Your task to perform on an android device: toggle improve location accuracy Image 0: 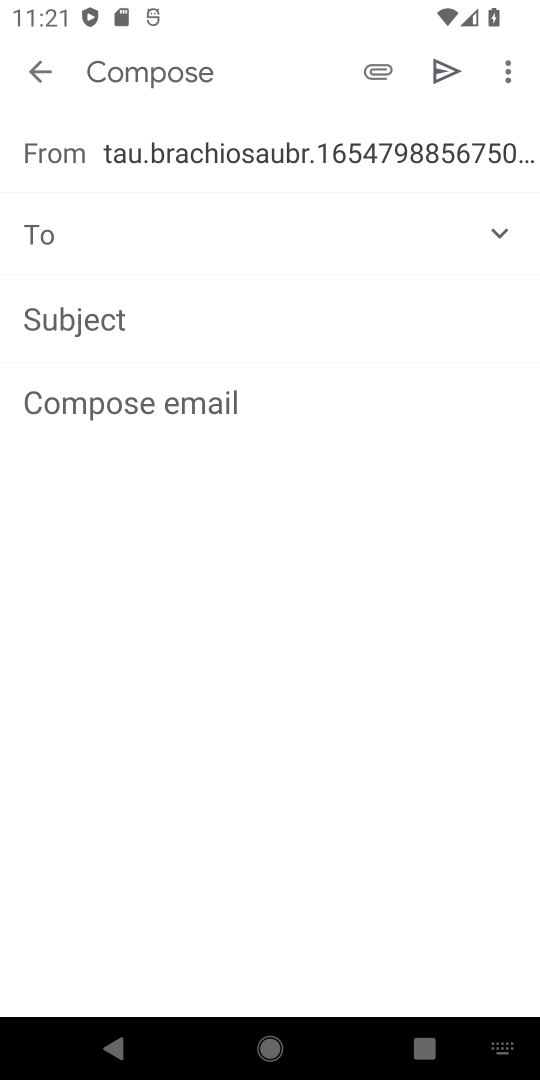
Step 0: press home button
Your task to perform on an android device: toggle improve location accuracy Image 1: 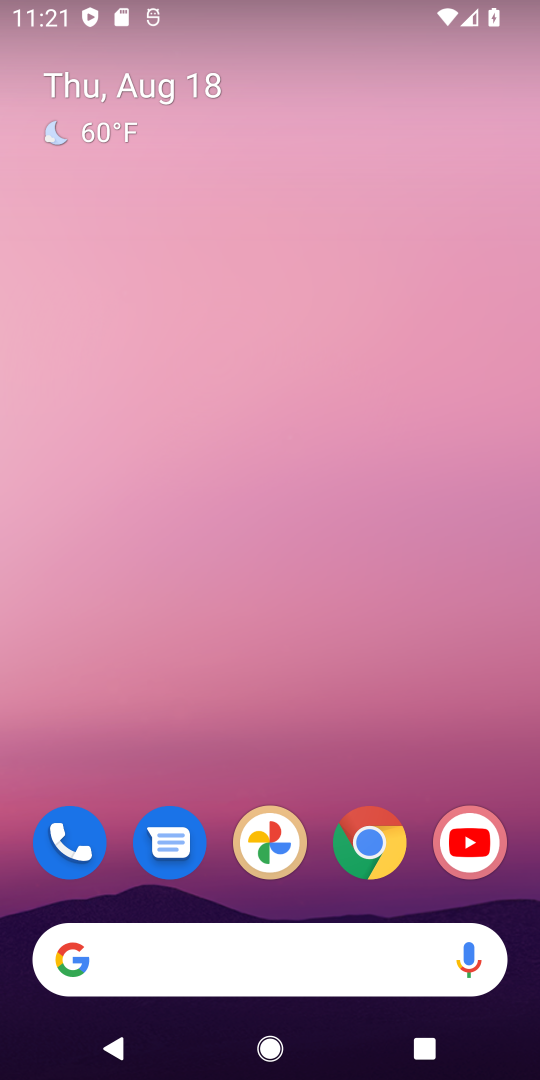
Step 1: drag from (311, 885) to (284, 349)
Your task to perform on an android device: toggle improve location accuracy Image 2: 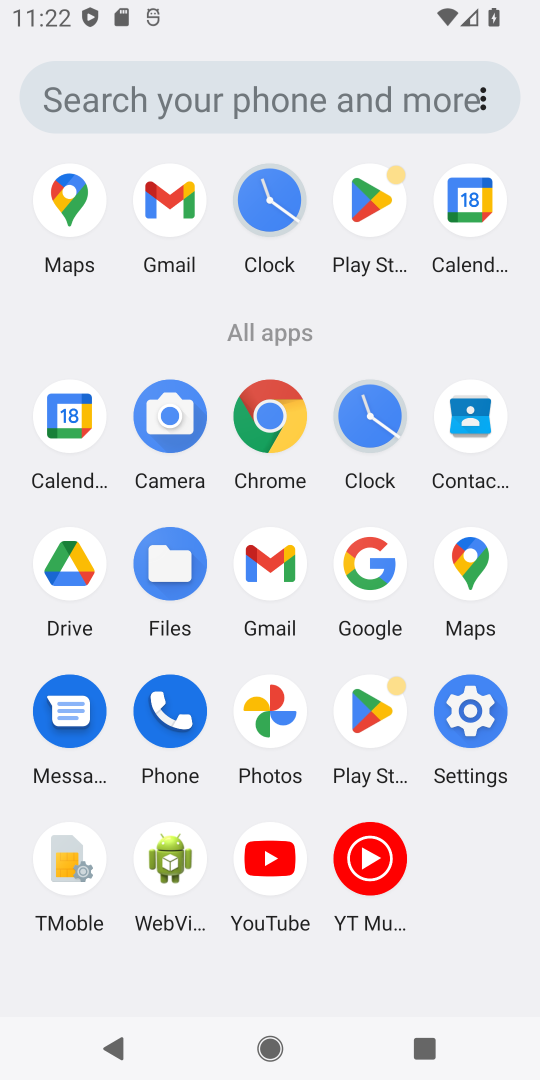
Step 2: click (472, 720)
Your task to perform on an android device: toggle improve location accuracy Image 3: 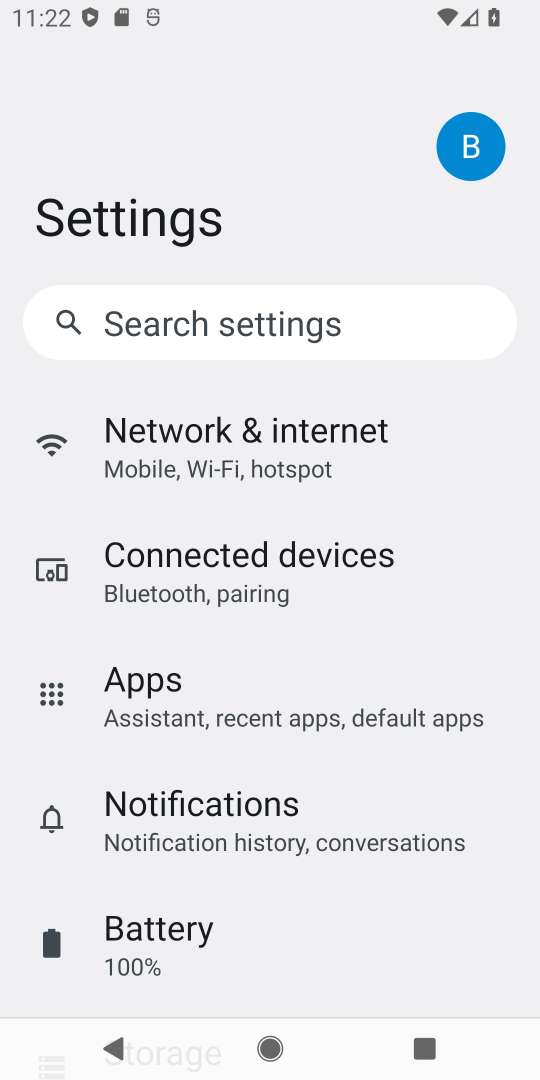
Step 3: drag from (340, 924) to (321, 144)
Your task to perform on an android device: toggle improve location accuracy Image 4: 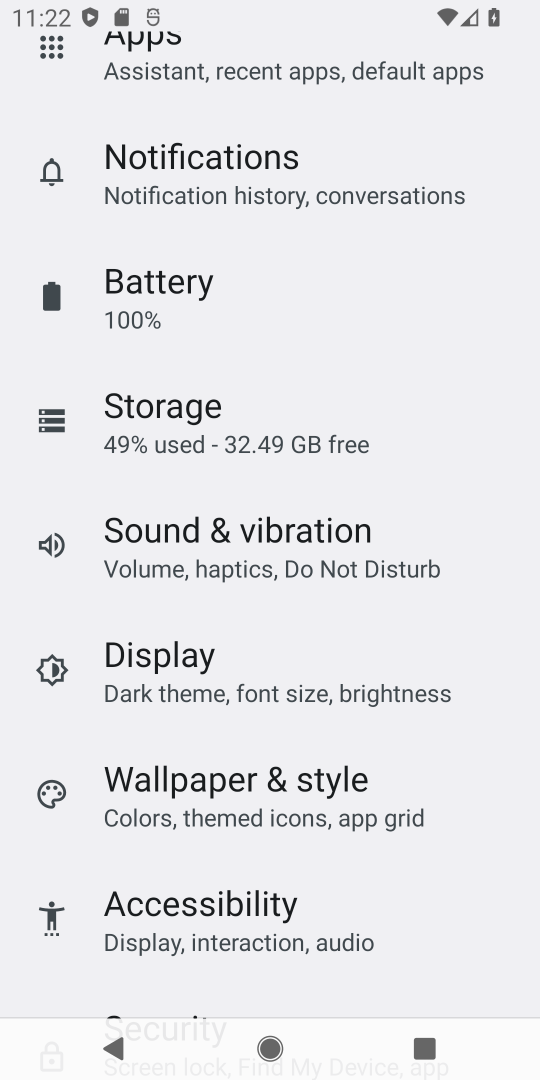
Step 4: drag from (233, 850) to (259, 322)
Your task to perform on an android device: toggle improve location accuracy Image 5: 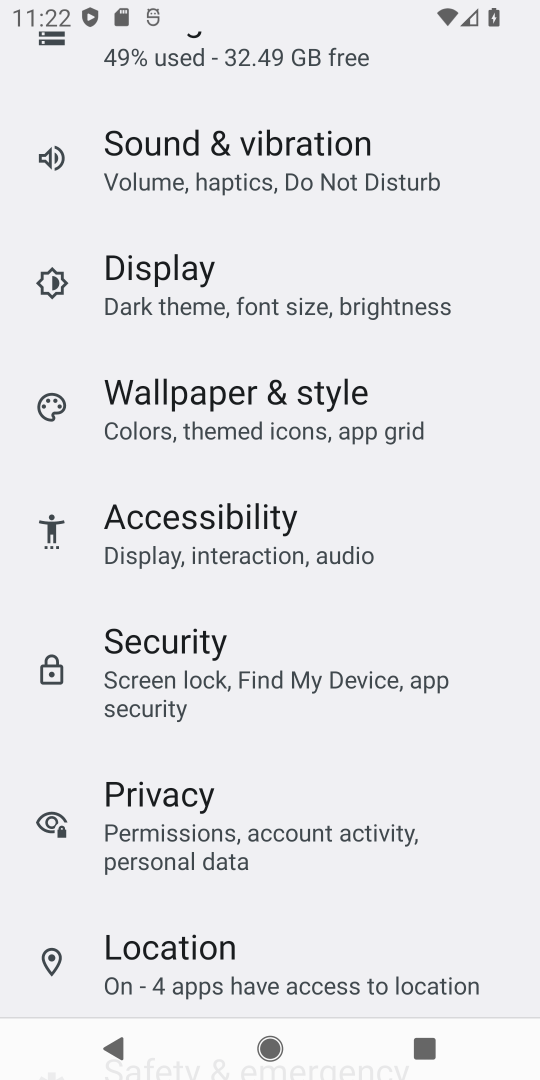
Step 5: click (205, 969)
Your task to perform on an android device: toggle improve location accuracy Image 6: 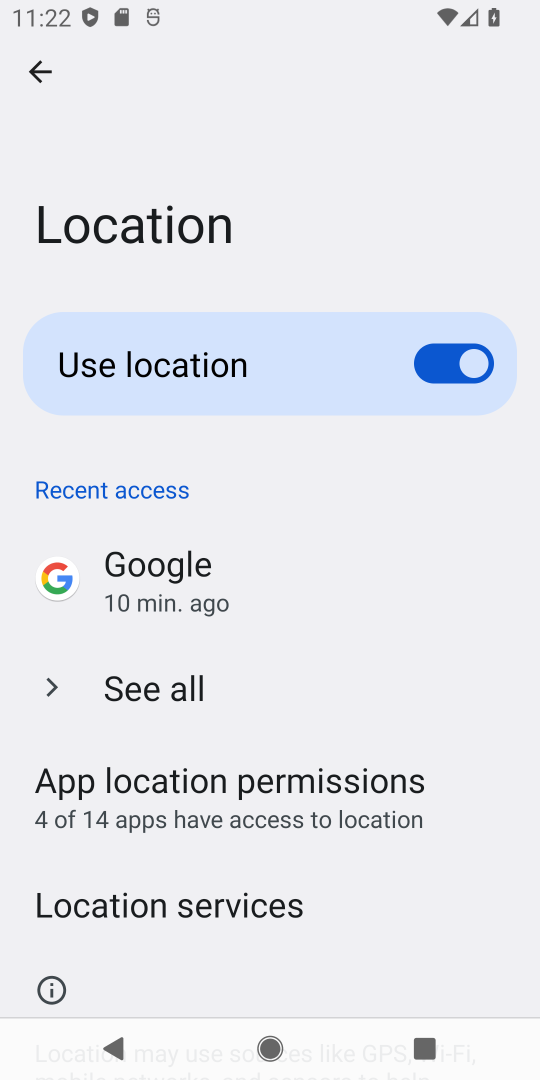
Step 6: click (194, 913)
Your task to perform on an android device: toggle improve location accuracy Image 7: 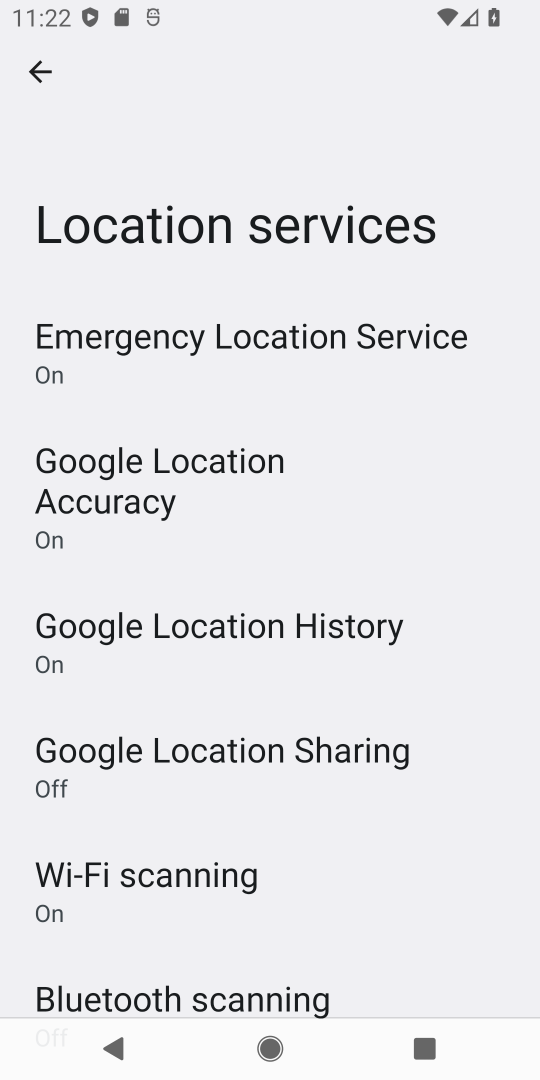
Step 7: click (58, 448)
Your task to perform on an android device: toggle improve location accuracy Image 8: 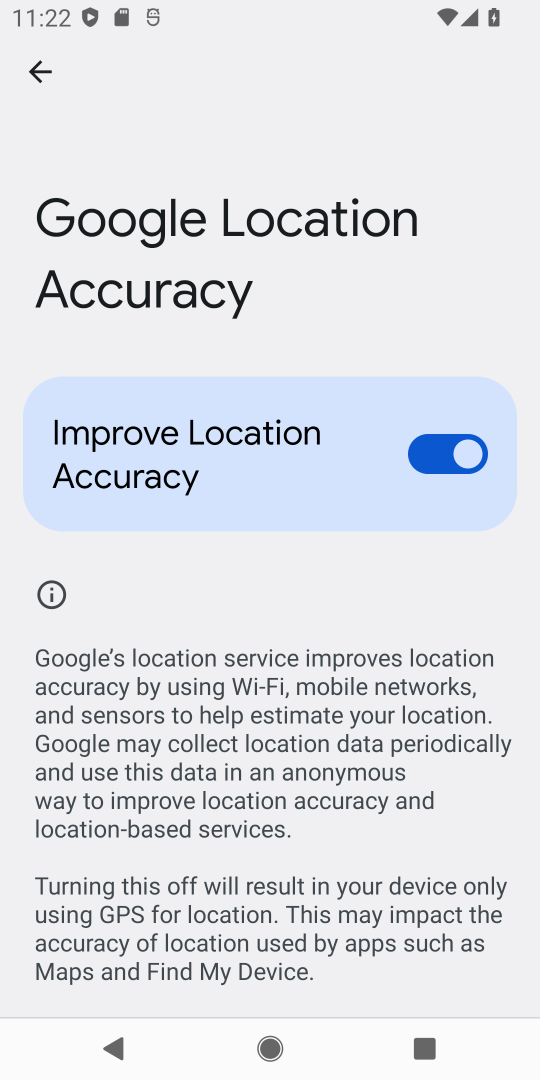
Step 8: click (432, 462)
Your task to perform on an android device: toggle improve location accuracy Image 9: 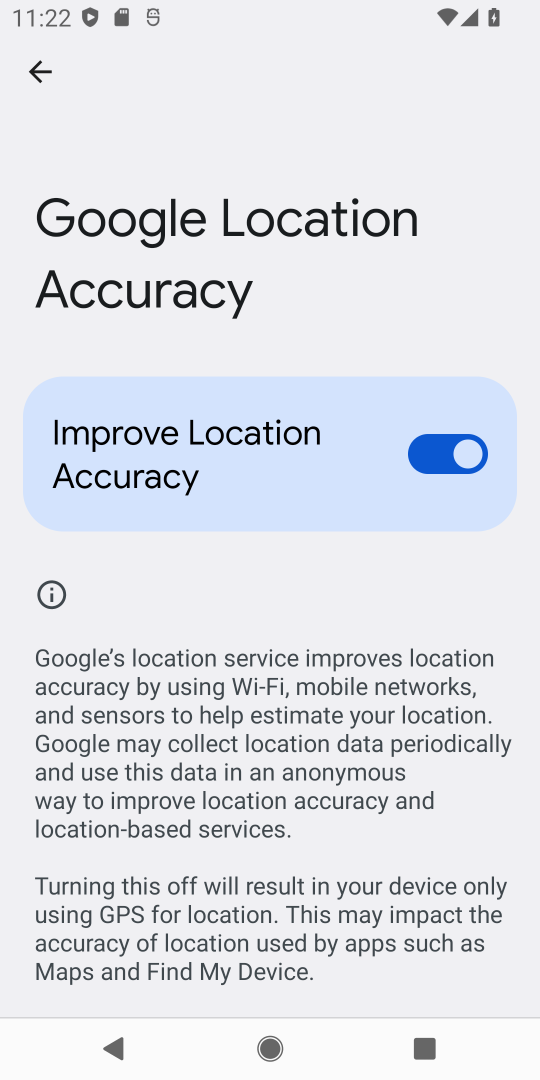
Step 9: click (432, 462)
Your task to perform on an android device: toggle improve location accuracy Image 10: 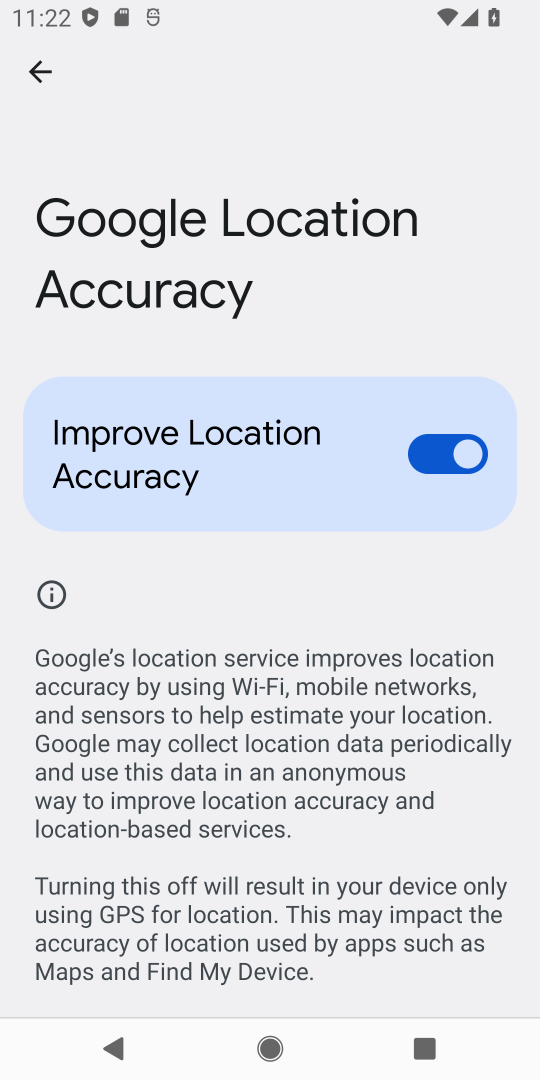
Step 10: click (432, 462)
Your task to perform on an android device: toggle improve location accuracy Image 11: 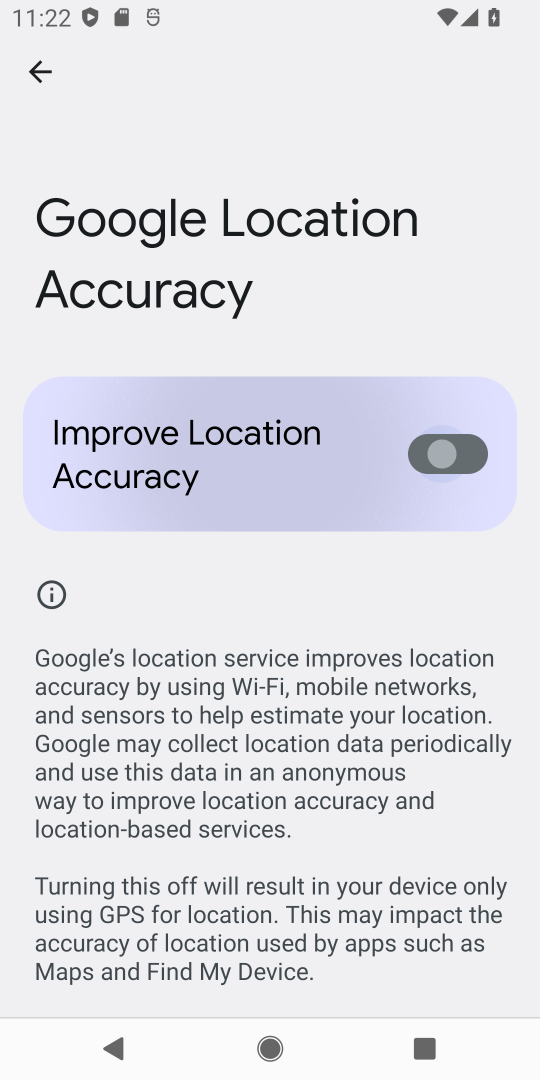
Step 11: click (432, 462)
Your task to perform on an android device: toggle improve location accuracy Image 12: 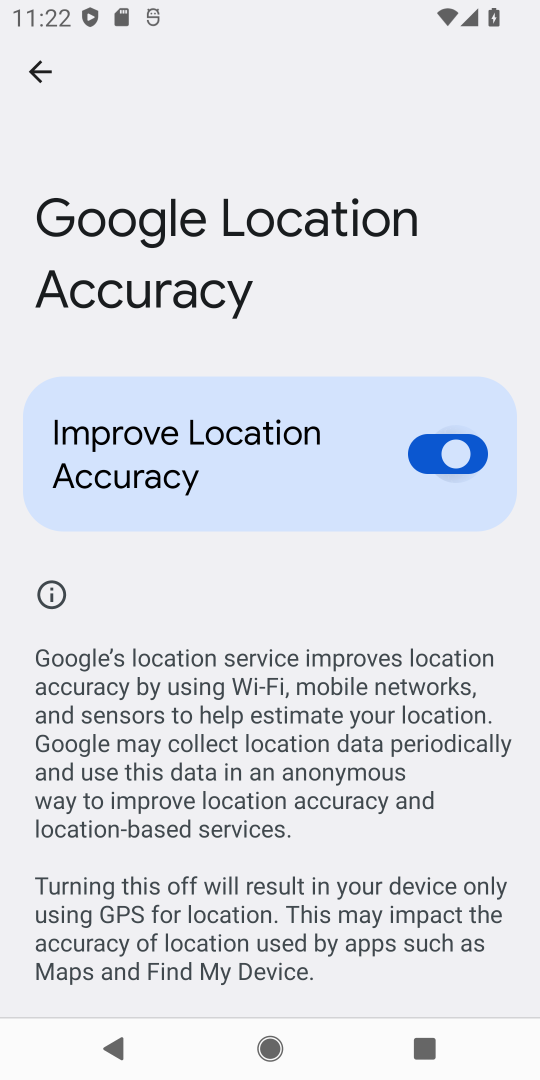
Step 12: click (432, 462)
Your task to perform on an android device: toggle improve location accuracy Image 13: 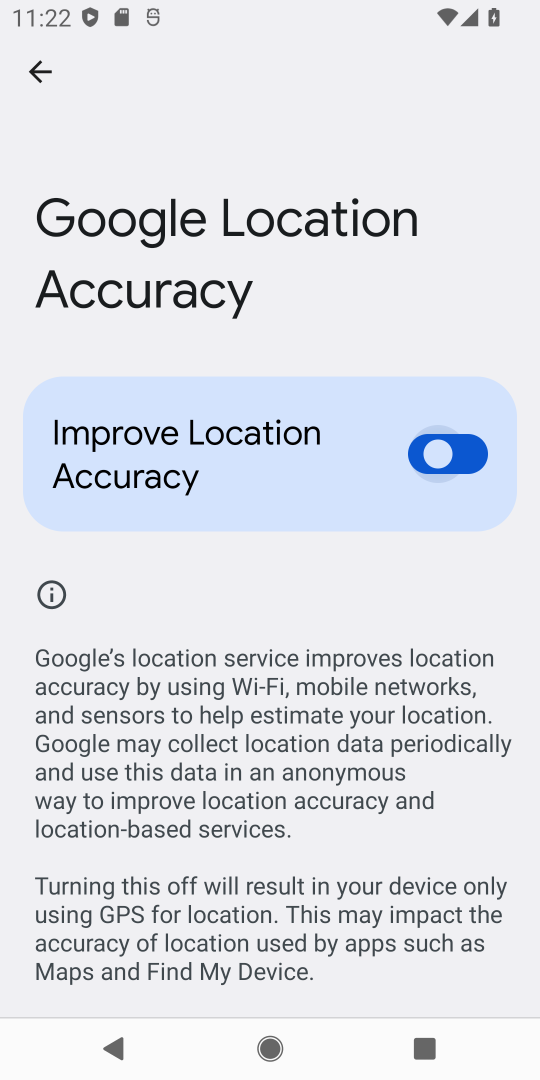
Step 13: click (432, 462)
Your task to perform on an android device: toggle improve location accuracy Image 14: 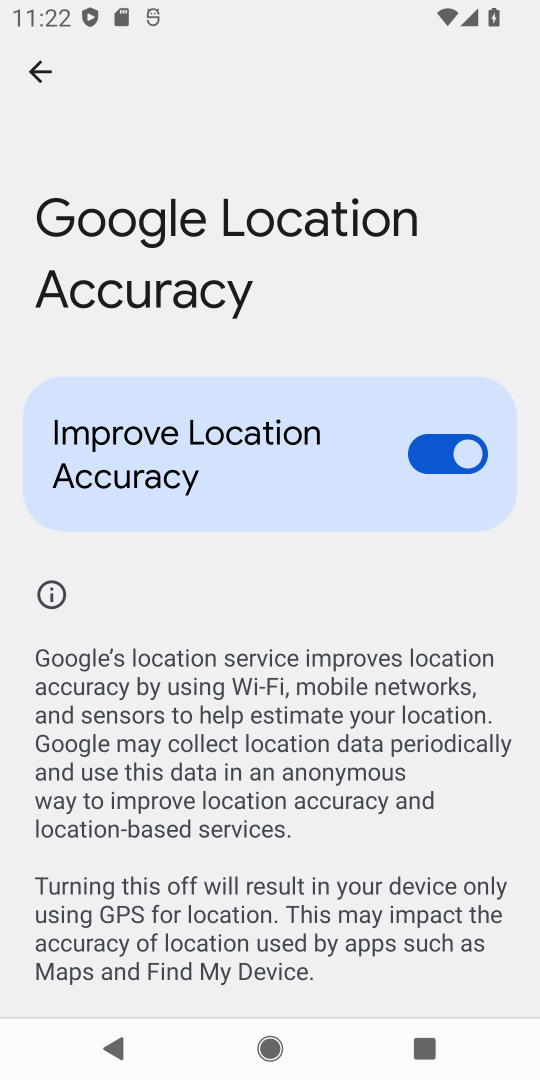
Step 14: task complete